Your task to perform on an android device: What's the weather going to be tomorrow? Image 0: 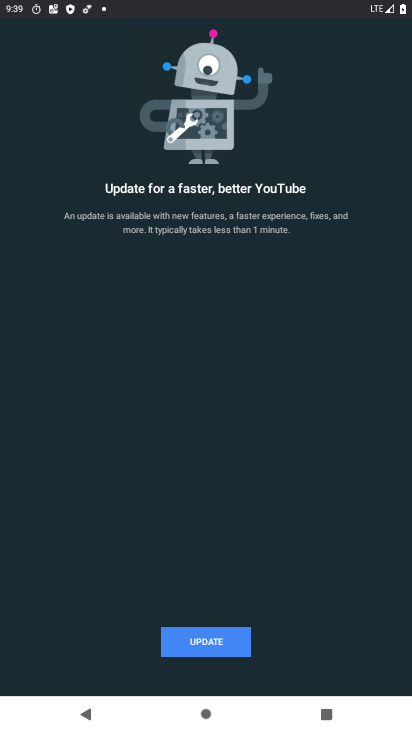
Step 0: press home button
Your task to perform on an android device: What's the weather going to be tomorrow? Image 1: 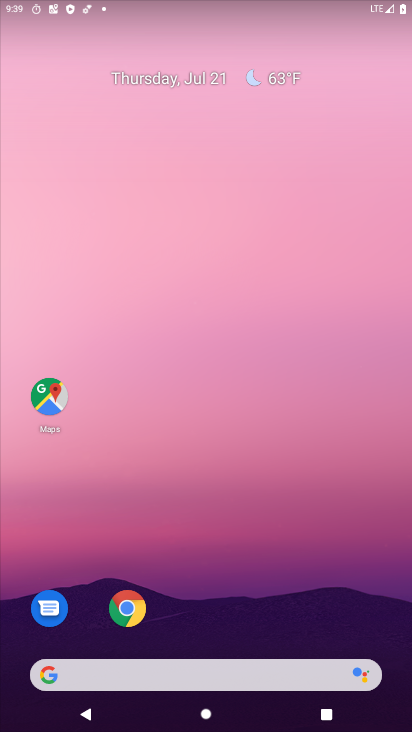
Step 1: drag from (224, 659) to (237, 131)
Your task to perform on an android device: What's the weather going to be tomorrow? Image 2: 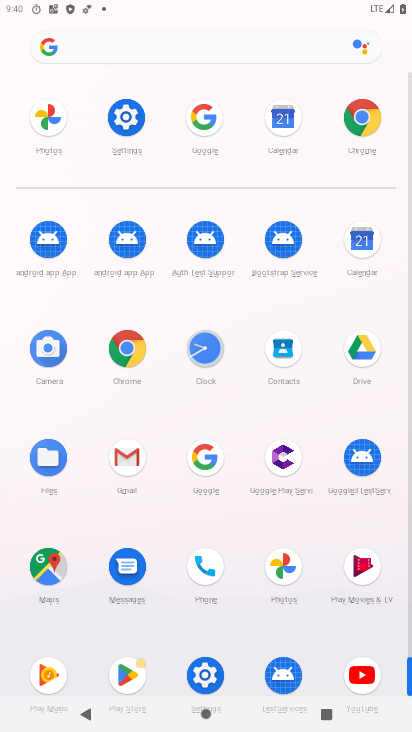
Step 2: click (196, 466)
Your task to perform on an android device: What's the weather going to be tomorrow? Image 3: 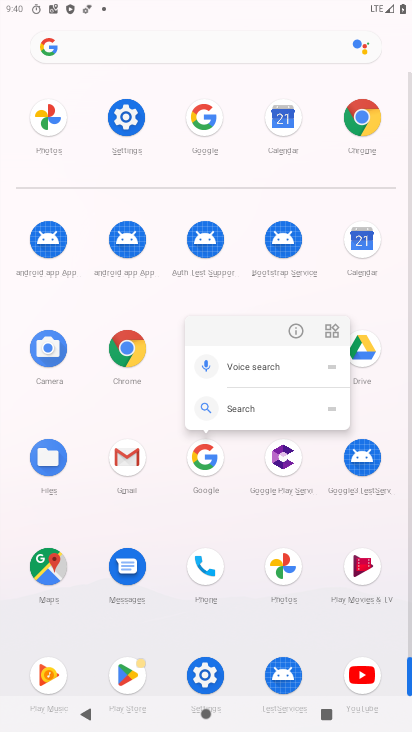
Step 3: click (199, 475)
Your task to perform on an android device: What's the weather going to be tomorrow? Image 4: 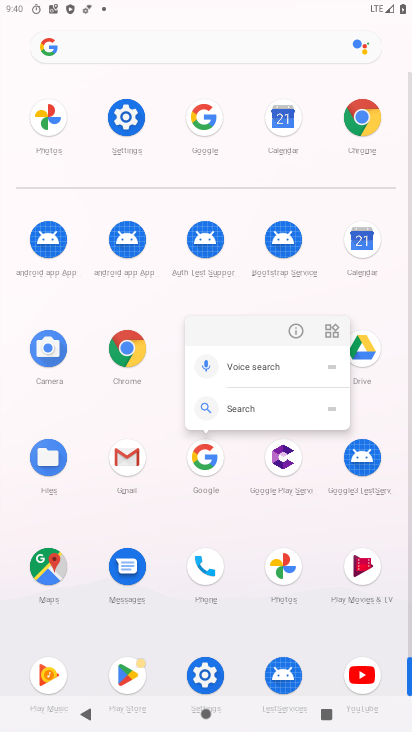
Step 4: click (204, 491)
Your task to perform on an android device: What's the weather going to be tomorrow? Image 5: 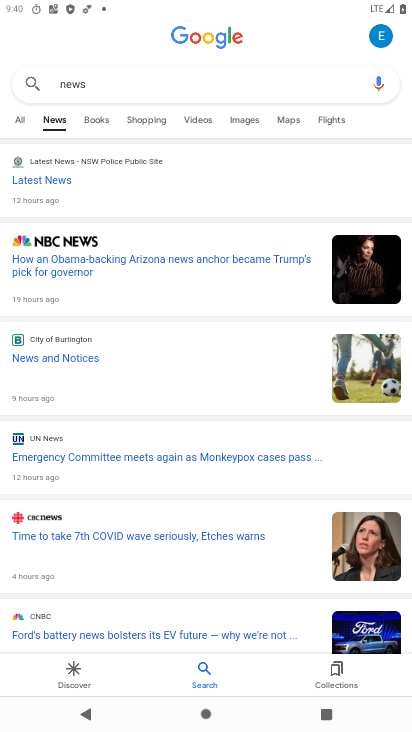
Step 5: click (232, 87)
Your task to perform on an android device: What's the weather going to be tomorrow? Image 6: 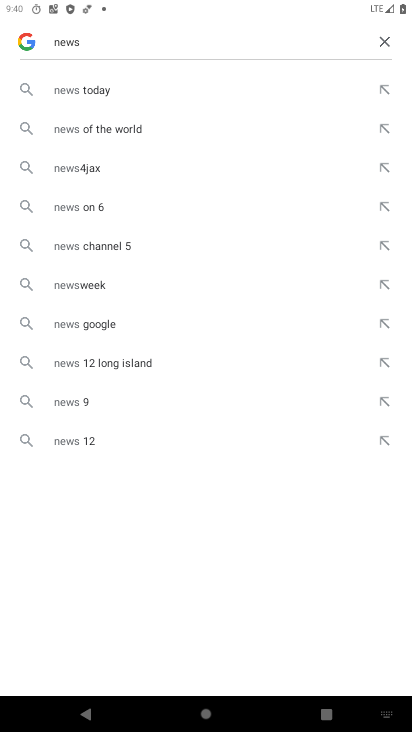
Step 6: click (386, 43)
Your task to perform on an android device: What's the weather going to be tomorrow? Image 7: 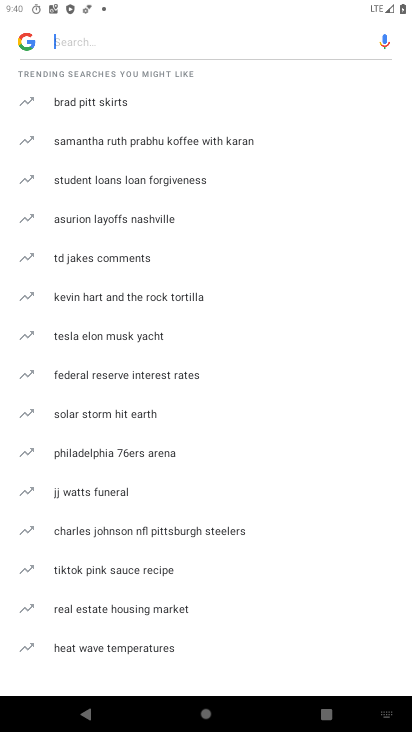
Step 7: type "weather"
Your task to perform on an android device: What's the weather going to be tomorrow? Image 8: 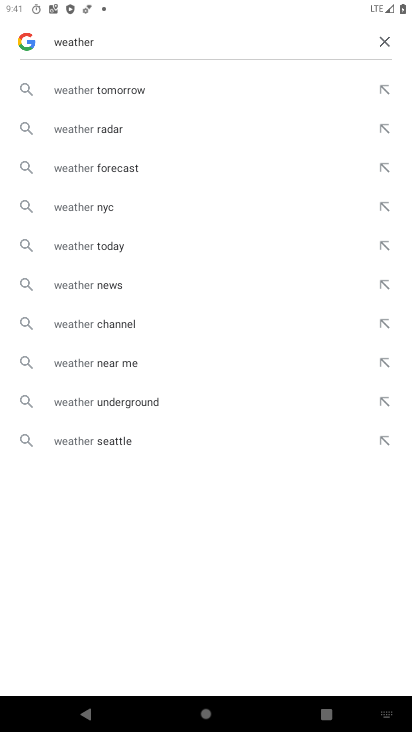
Step 8: click (128, 90)
Your task to perform on an android device: What's the weather going to be tomorrow? Image 9: 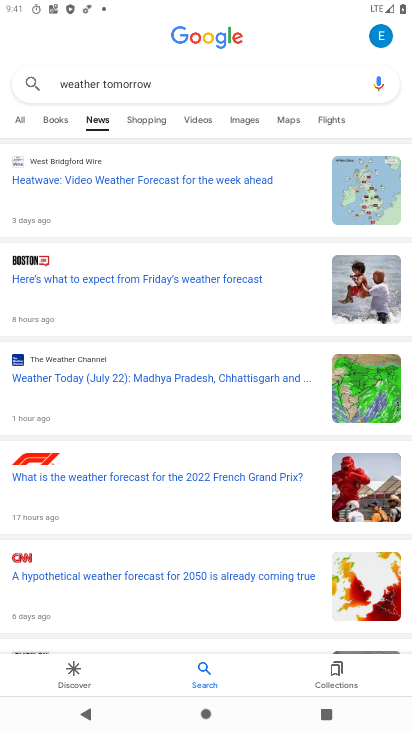
Step 9: click (24, 114)
Your task to perform on an android device: What's the weather going to be tomorrow? Image 10: 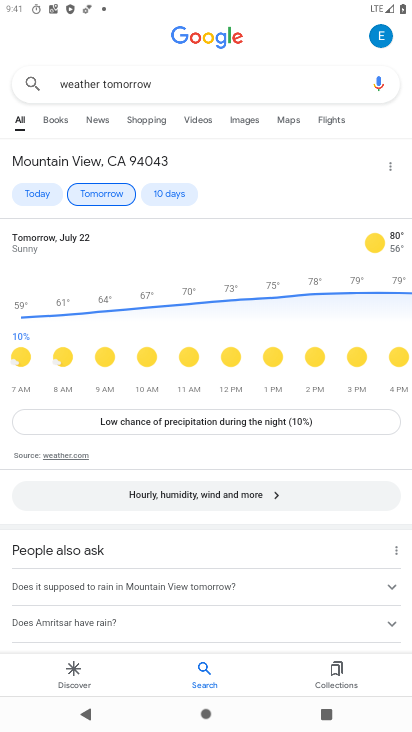
Step 10: task complete